Your task to perform on an android device: Go to eBay Image 0: 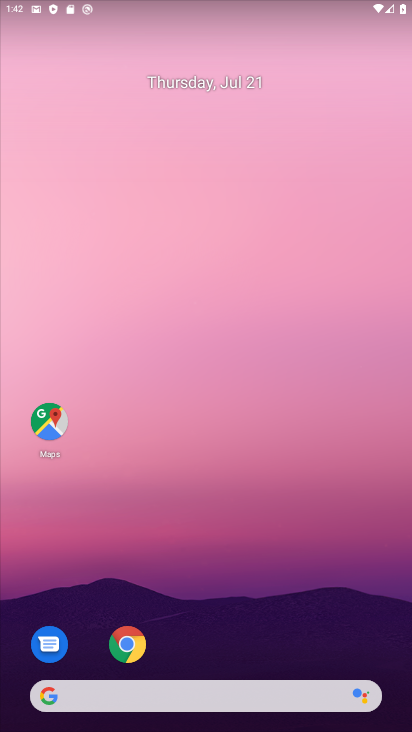
Step 0: click (132, 641)
Your task to perform on an android device: Go to eBay Image 1: 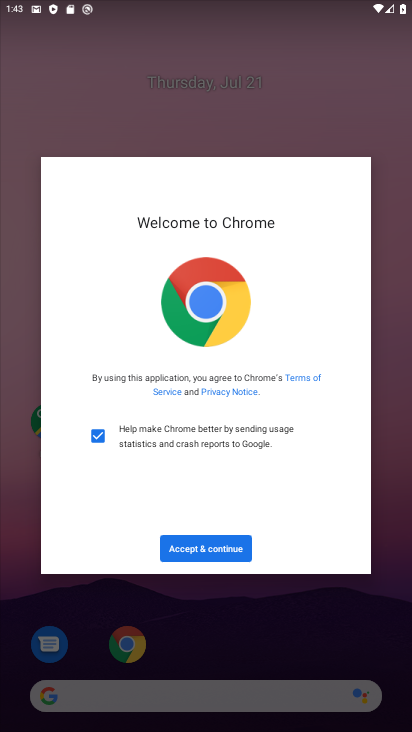
Step 1: click (192, 545)
Your task to perform on an android device: Go to eBay Image 2: 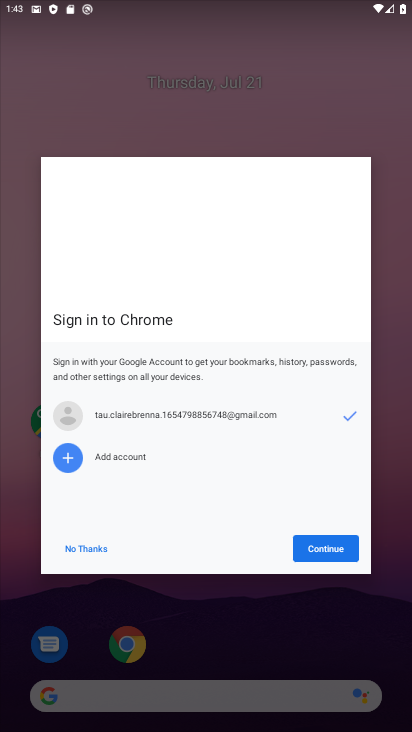
Step 2: click (319, 543)
Your task to perform on an android device: Go to eBay Image 3: 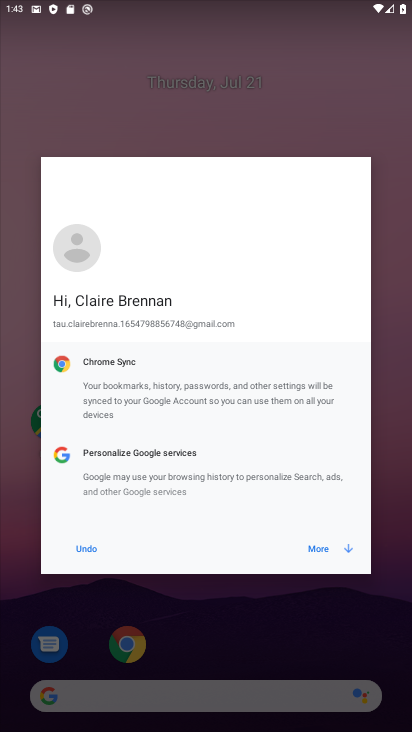
Step 3: click (319, 543)
Your task to perform on an android device: Go to eBay Image 4: 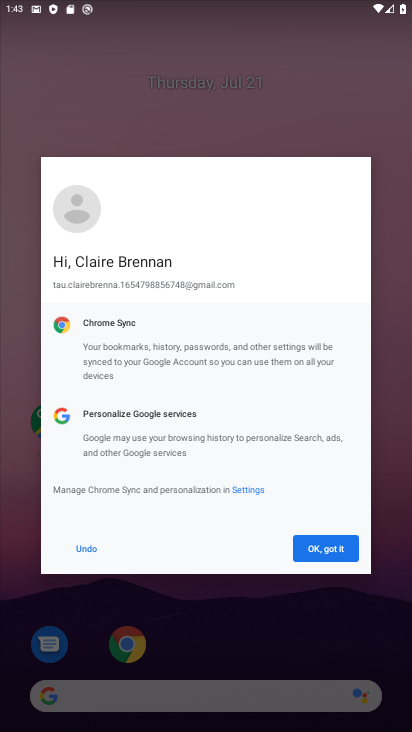
Step 4: click (323, 545)
Your task to perform on an android device: Go to eBay Image 5: 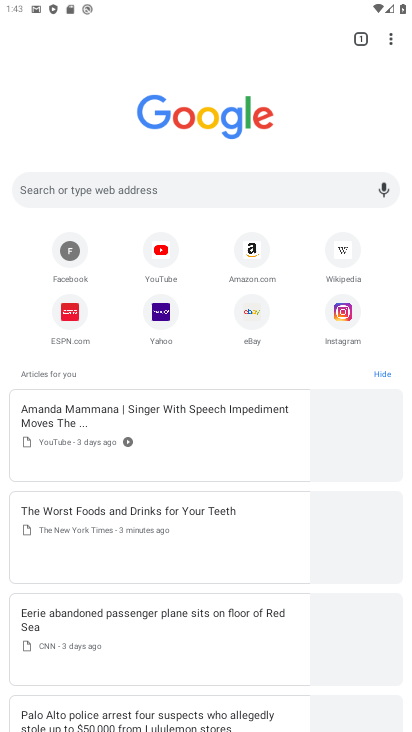
Step 5: click (242, 316)
Your task to perform on an android device: Go to eBay Image 6: 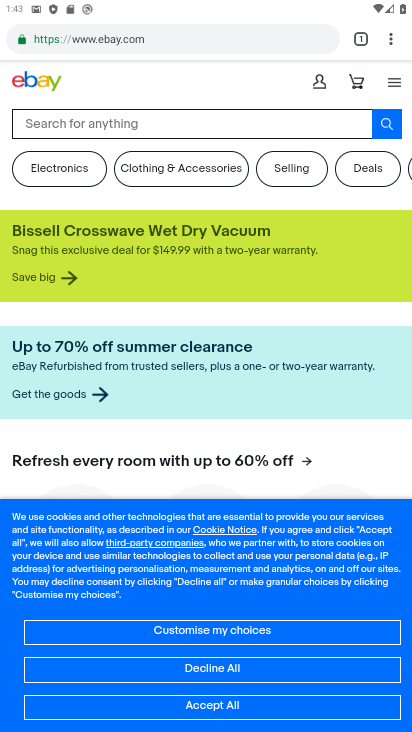
Step 6: task complete